Your task to perform on an android device: set default search engine in the chrome app Image 0: 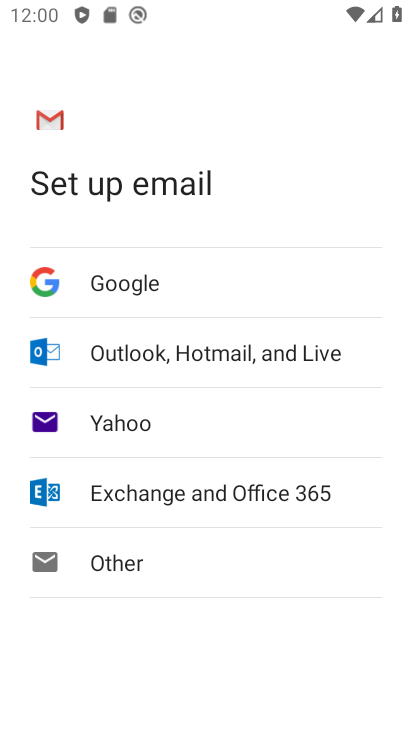
Step 0: press home button
Your task to perform on an android device: set default search engine in the chrome app Image 1: 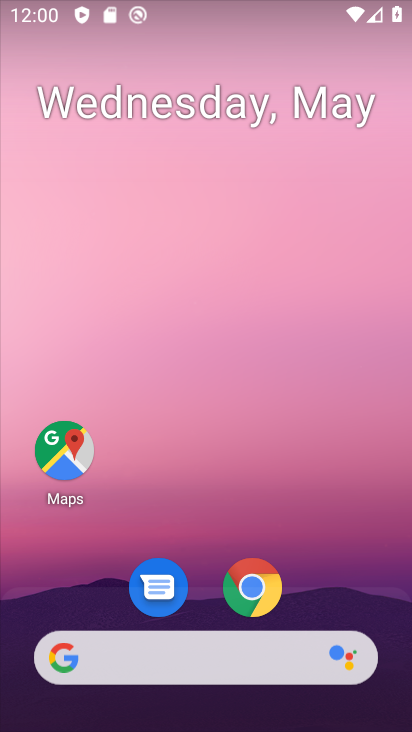
Step 1: click (272, 580)
Your task to perform on an android device: set default search engine in the chrome app Image 2: 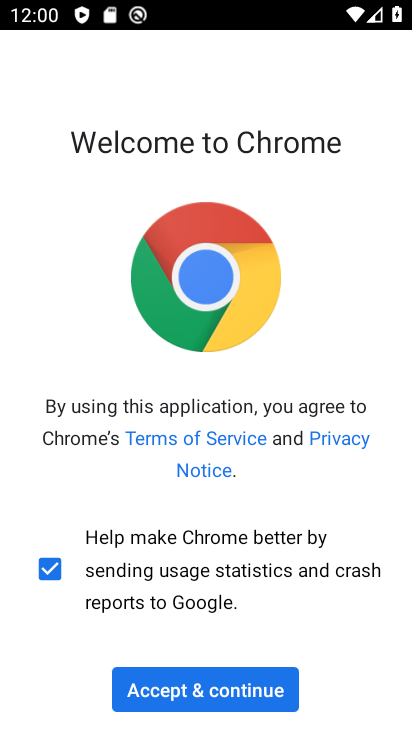
Step 2: click (235, 690)
Your task to perform on an android device: set default search engine in the chrome app Image 3: 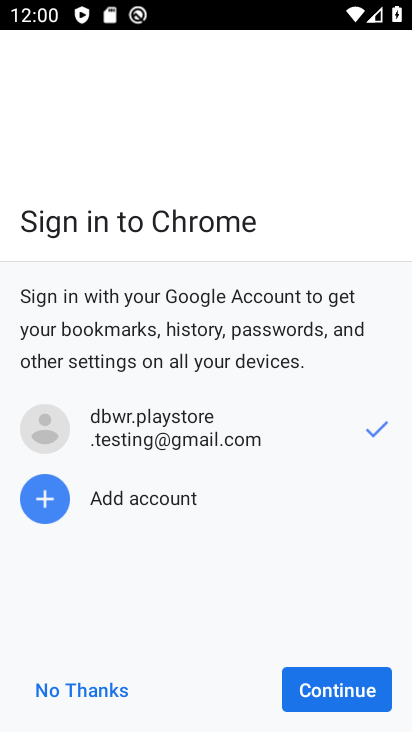
Step 3: click (315, 699)
Your task to perform on an android device: set default search engine in the chrome app Image 4: 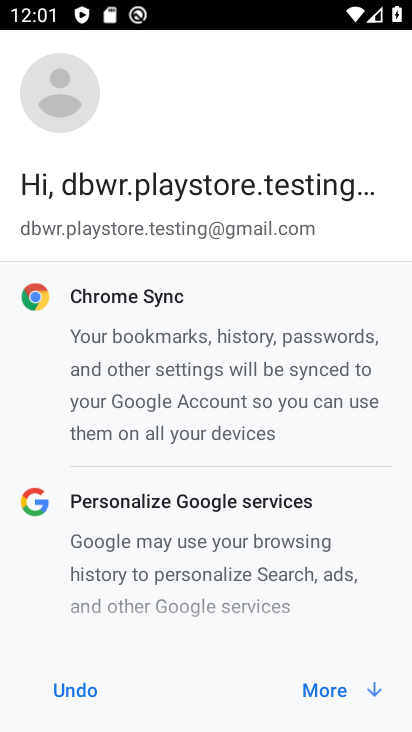
Step 4: click (315, 699)
Your task to perform on an android device: set default search engine in the chrome app Image 5: 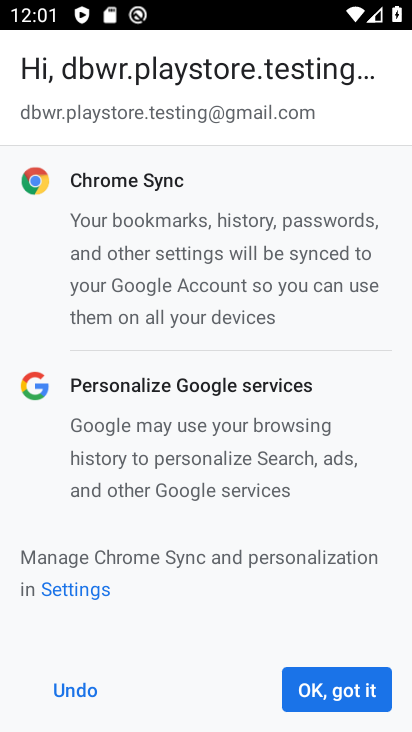
Step 5: click (315, 699)
Your task to perform on an android device: set default search engine in the chrome app Image 6: 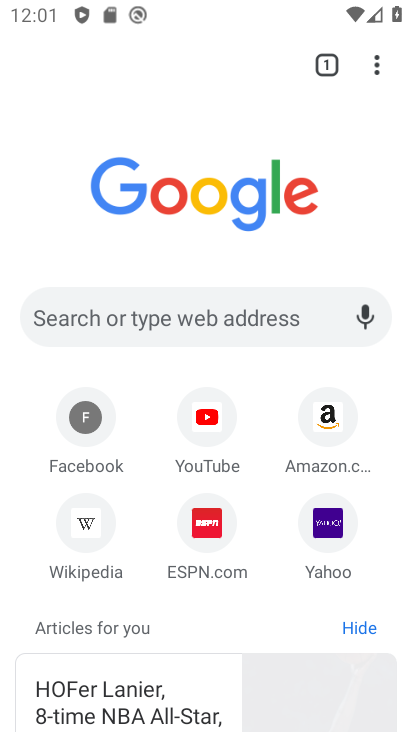
Step 6: click (371, 76)
Your task to perform on an android device: set default search engine in the chrome app Image 7: 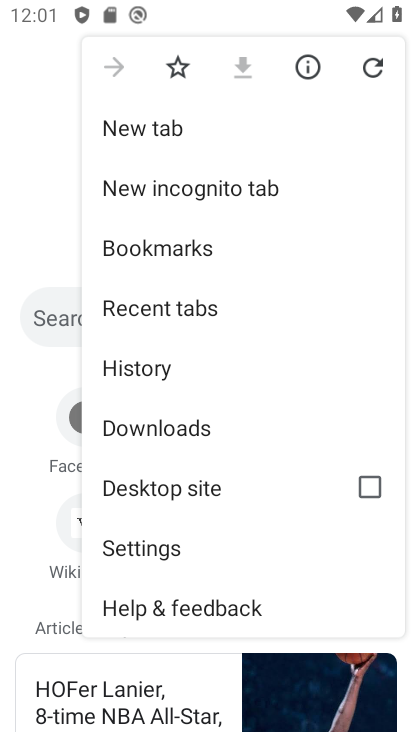
Step 7: click (209, 555)
Your task to perform on an android device: set default search engine in the chrome app Image 8: 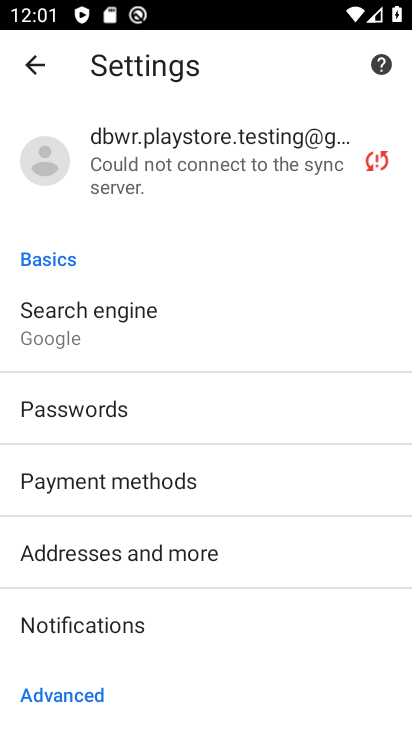
Step 8: click (136, 338)
Your task to perform on an android device: set default search engine in the chrome app Image 9: 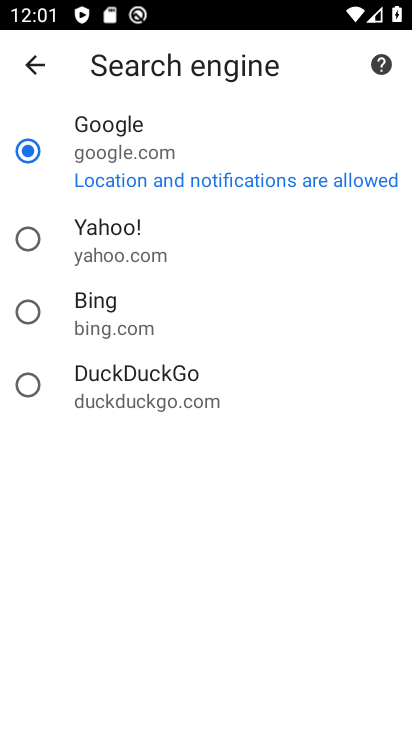
Step 9: click (55, 334)
Your task to perform on an android device: set default search engine in the chrome app Image 10: 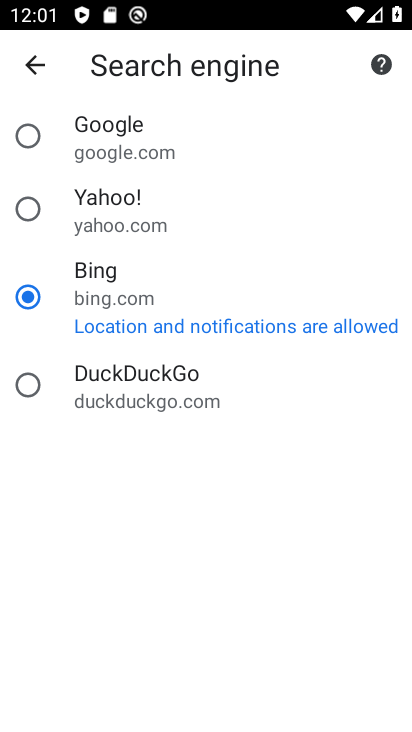
Step 10: task complete